Your task to perform on an android device: Search for vegetarian restaurants on Maps Image 0: 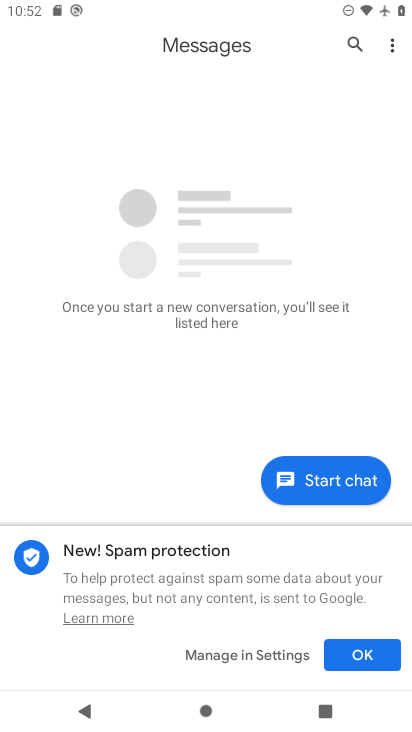
Step 0: press home button
Your task to perform on an android device: Search for vegetarian restaurants on Maps Image 1: 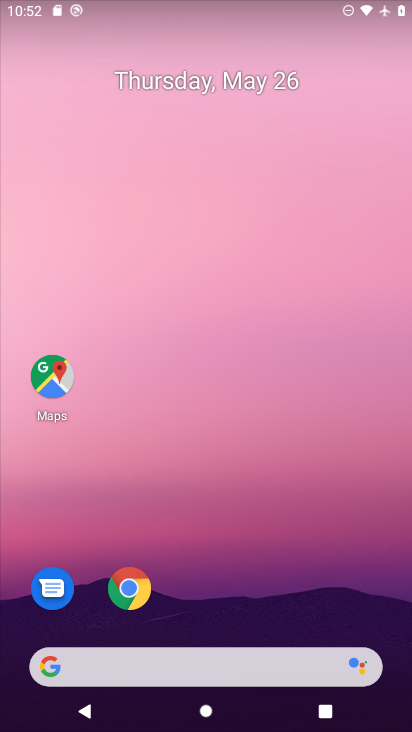
Step 1: click (54, 378)
Your task to perform on an android device: Search for vegetarian restaurants on Maps Image 2: 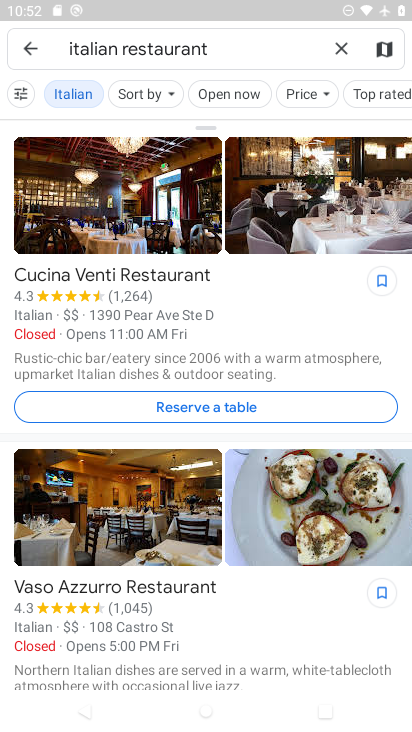
Step 2: click (342, 49)
Your task to perform on an android device: Search for vegetarian restaurants on Maps Image 3: 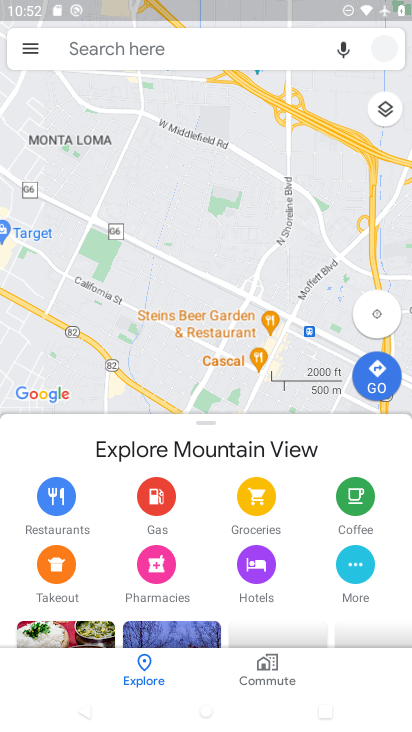
Step 3: click (267, 56)
Your task to perform on an android device: Search for vegetarian restaurants on Maps Image 4: 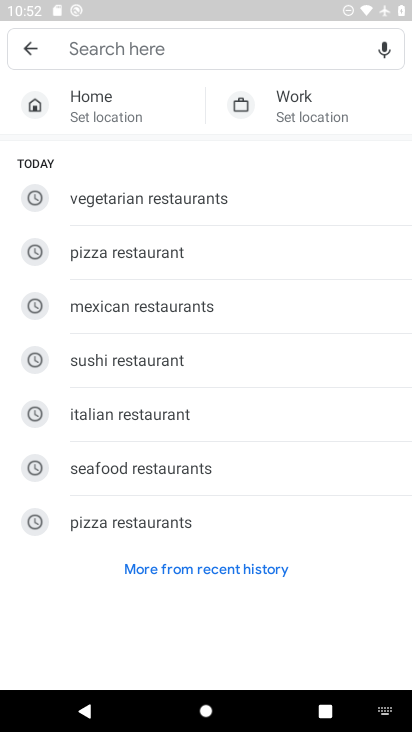
Step 4: type "vegetarian restaurants"
Your task to perform on an android device: Search for vegetarian restaurants on Maps Image 5: 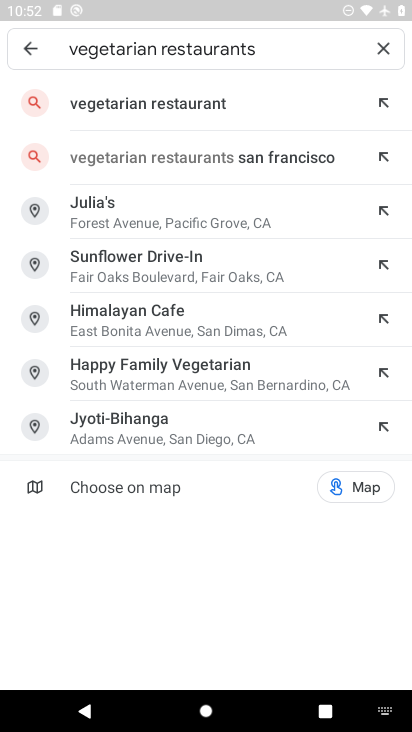
Step 5: click (154, 117)
Your task to perform on an android device: Search for vegetarian restaurants on Maps Image 6: 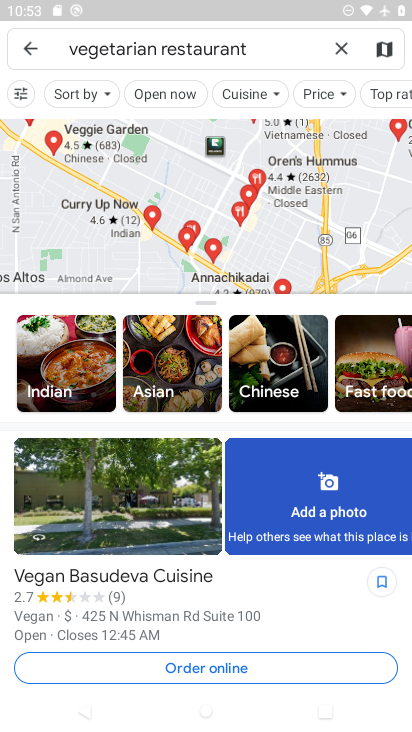
Step 6: task complete